Your task to perform on an android device: Find coffee shops on Maps Image 0: 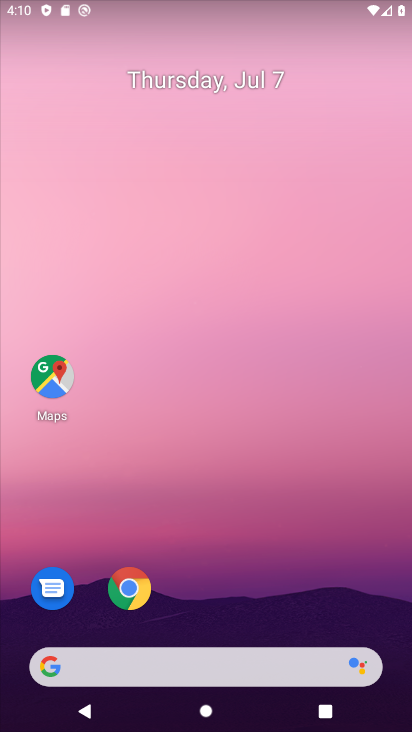
Step 0: drag from (280, 632) to (337, 8)
Your task to perform on an android device: Find coffee shops on Maps Image 1: 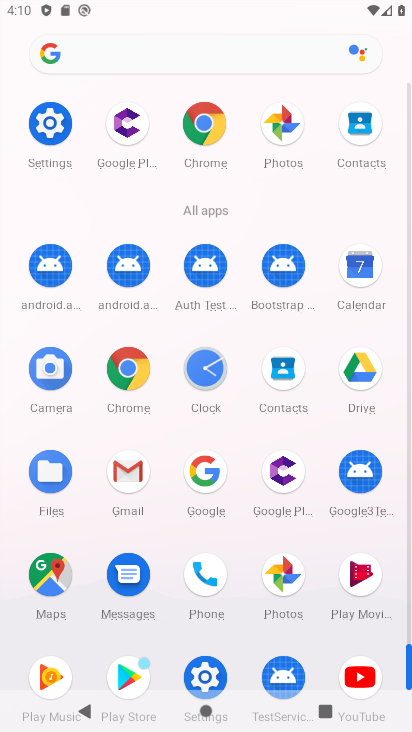
Step 1: click (47, 574)
Your task to perform on an android device: Find coffee shops on Maps Image 2: 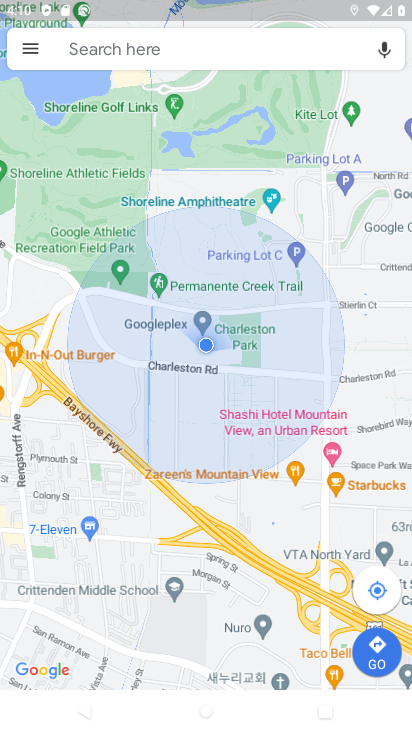
Step 2: click (197, 62)
Your task to perform on an android device: Find coffee shops on Maps Image 3: 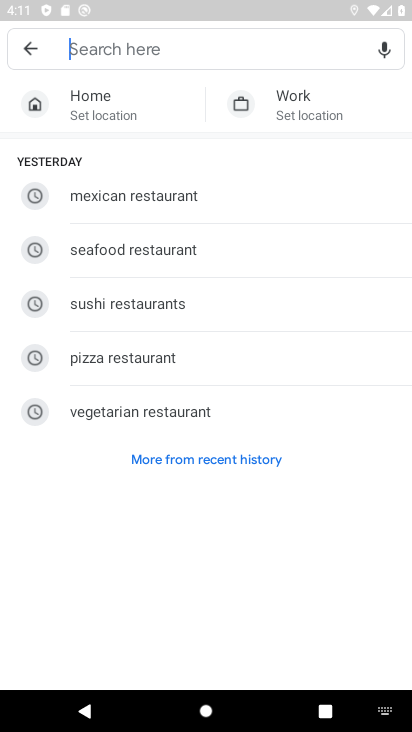
Step 3: type "coffee shops"
Your task to perform on an android device: Find coffee shops on Maps Image 4: 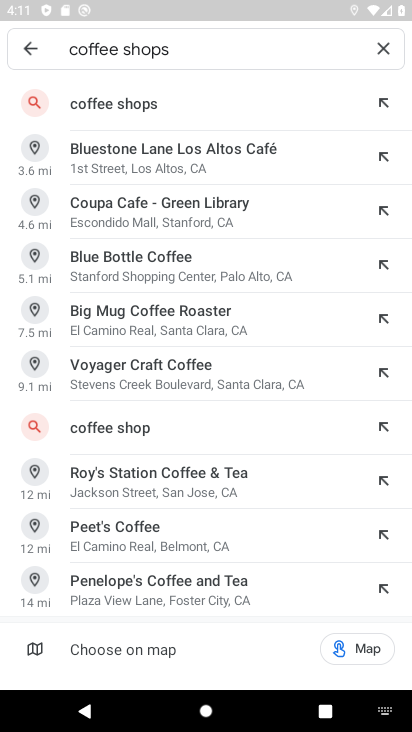
Step 4: click (165, 108)
Your task to perform on an android device: Find coffee shops on Maps Image 5: 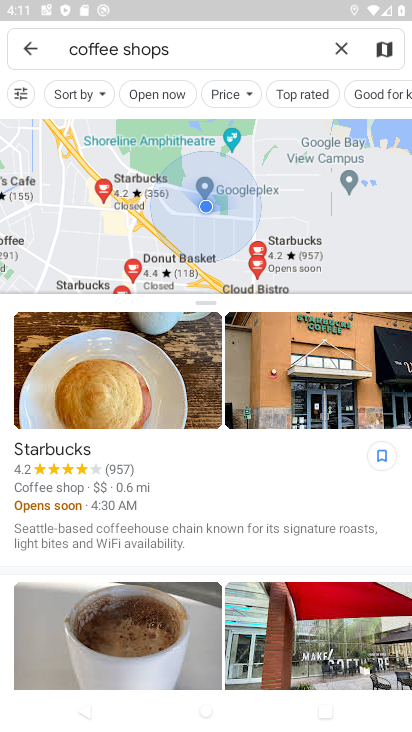
Step 5: task complete